Your task to perform on an android device: Open my contact list Image 0: 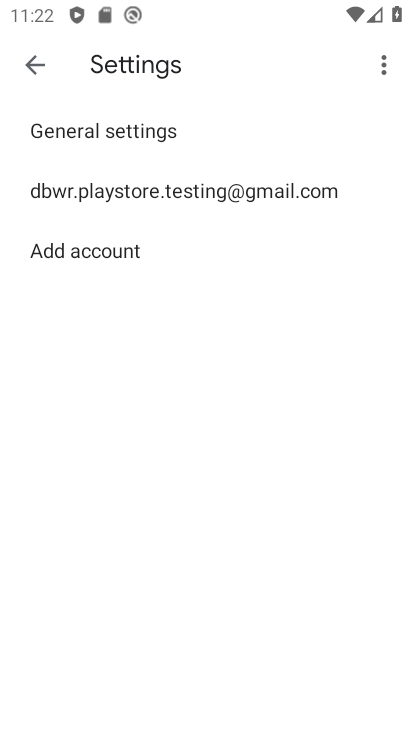
Step 0: press back button
Your task to perform on an android device: Open my contact list Image 1: 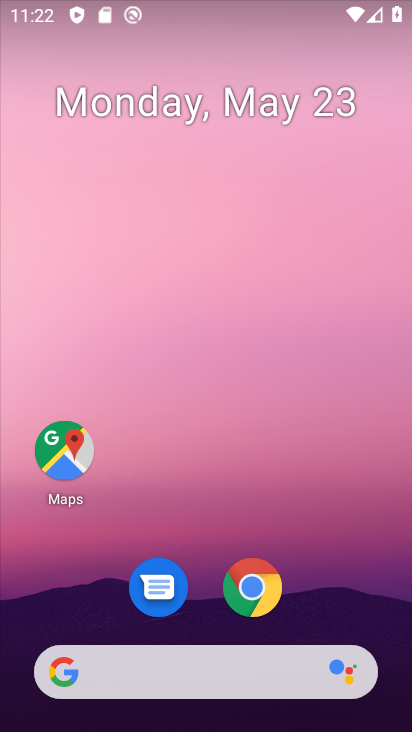
Step 1: drag from (324, 602) to (186, 167)
Your task to perform on an android device: Open my contact list Image 2: 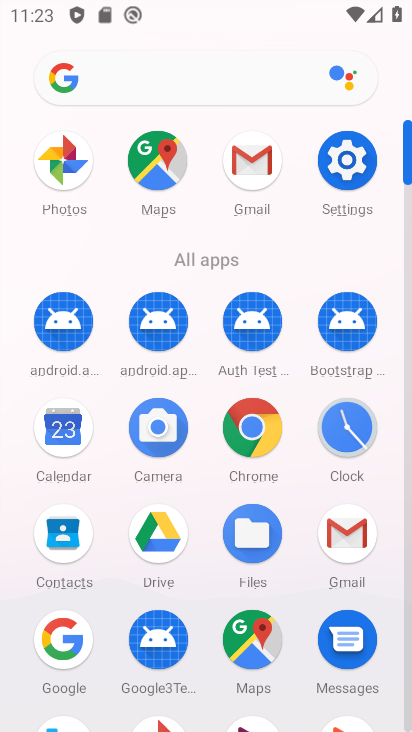
Step 2: click (59, 537)
Your task to perform on an android device: Open my contact list Image 3: 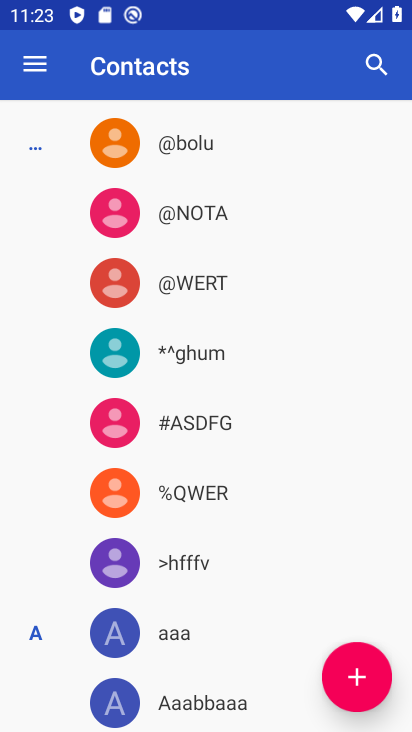
Step 3: task complete